Your task to perform on an android device: Open the calendar app, open the side menu, and click the "Day" option Image 0: 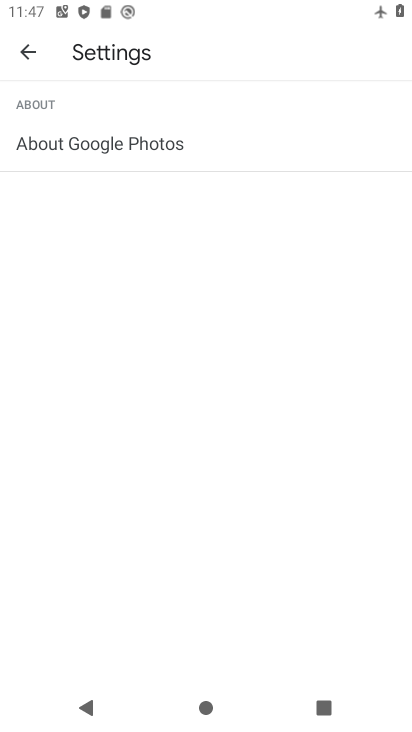
Step 0: press home button
Your task to perform on an android device: Open the calendar app, open the side menu, and click the "Day" option Image 1: 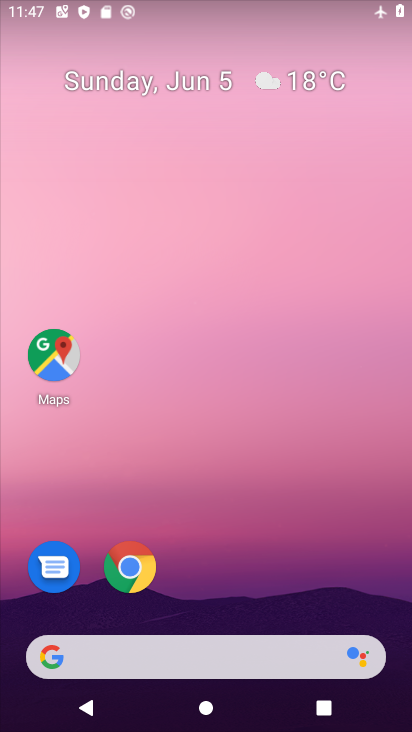
Step 1: drag from (224, 482) to (306, 15)
Your task to perform on an android device: Open the calendar app, open the side menu, and click the "Day" option Image 2: 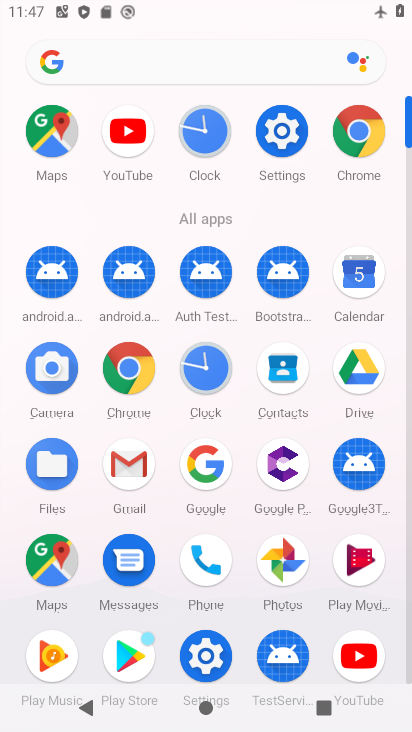
Step 2: click (360, 267)
Your task to perform on an android device: Open the calendar app, open the side menu, and click the "Day" option Image 3: 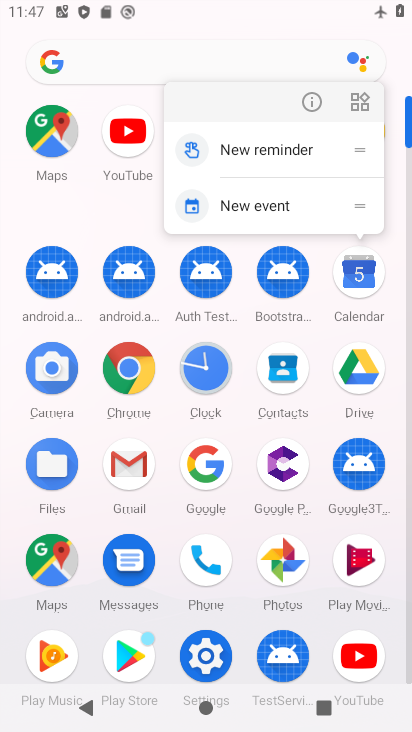
Step 3: click (360, 267)
Your task to perform on an android device: Open the calendar app, open the side menu, and click the "Day" option Image 4: 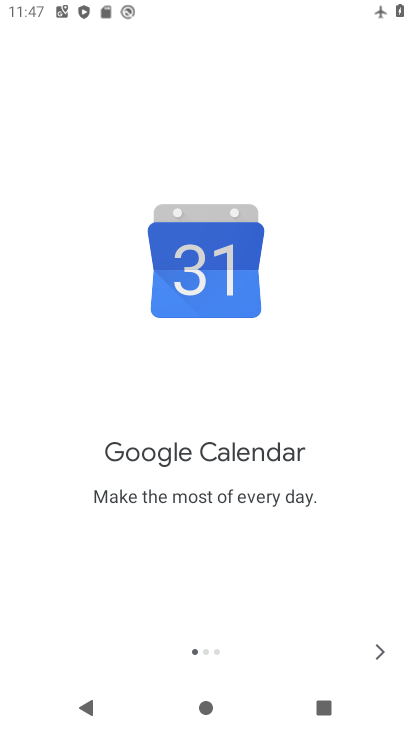
Step 4: click (373, 645)
Your task to perform on an android device: Open the calendar app, open the side menu, and click the "Day" option Image 5: 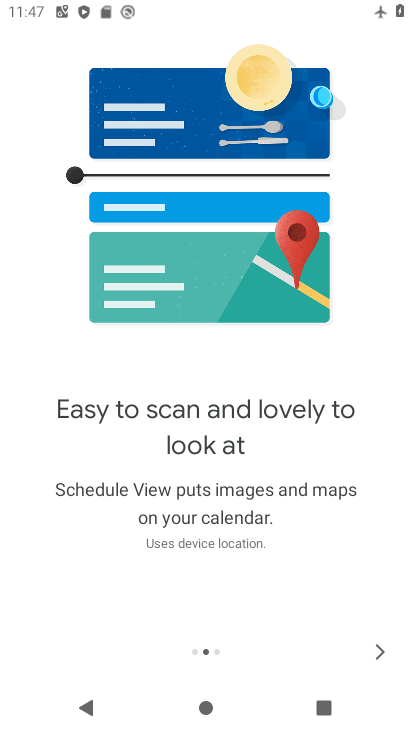
Step 5: click (373, 645)
Your task to perform on an android device: Open the calendar app, open the side menu, and click the "Day" option Image 6: 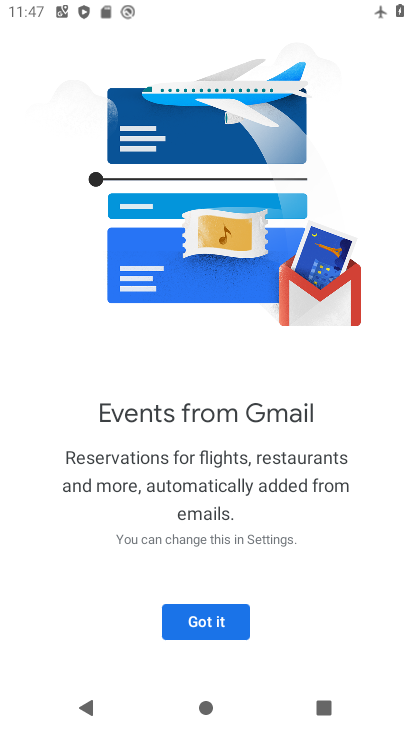
Step 6: click (238, 626)
Your task to perform on an android device: Open the calendar app, open the side menu, and click the "Day" option Image 7: 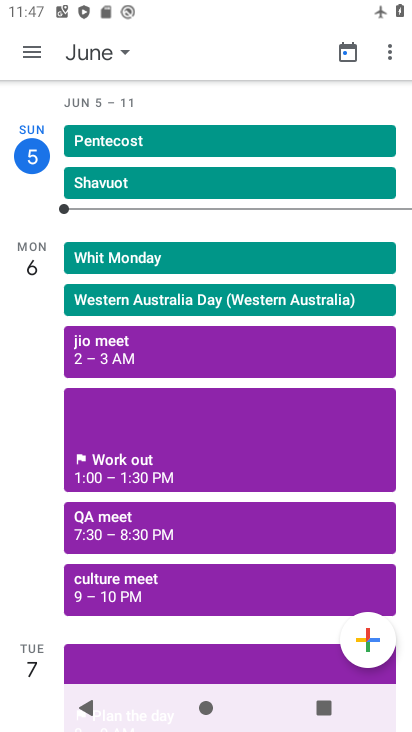
Step 7: click (33, 49)
Your task to perform on an android device: Open the calendar app, open the side menu, and click the "Day" option Image 8: 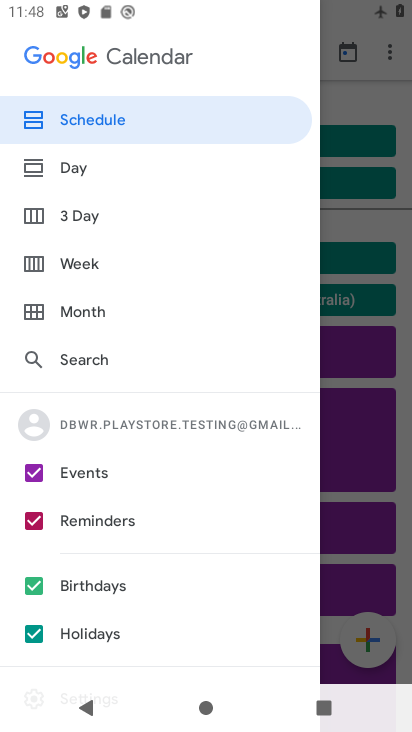
Step 8: click (32, 168)
Your task to perform on an android device: Open the calendar app, open the side menu, and click the "Day" option Image 9: 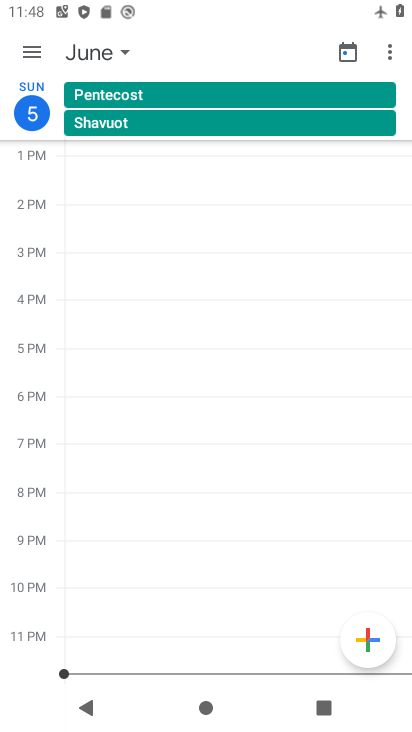
Step 9: task complete